Your task to perform on an android device: check storage Image 0: 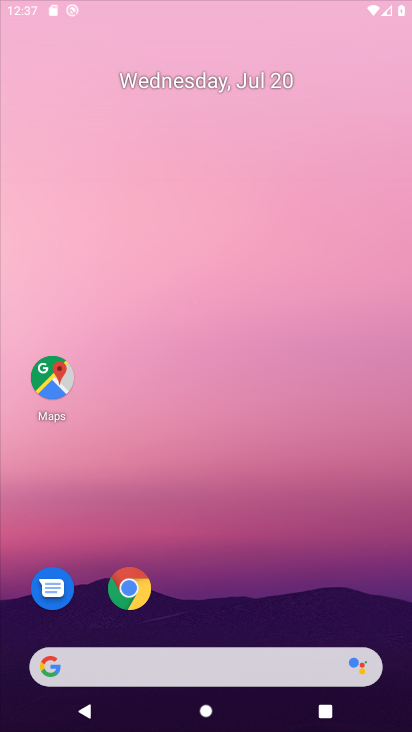
Step 0: click (243, 81)
Your task to perform on an android device: check storage Image 1: 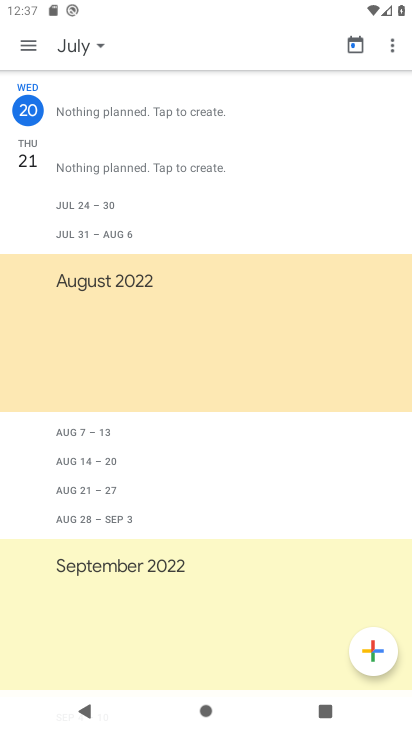
Step 1: press home button
Your task to perform on an android device: check storage Image 2: 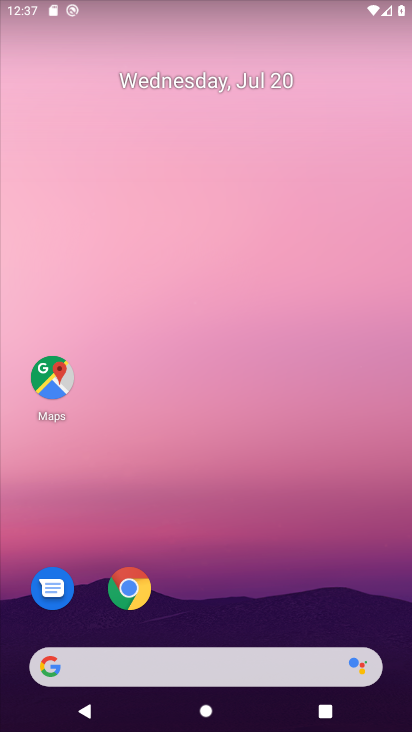
Step 2: drag from (212, 573) to (275, 315)
Your task to perform on an android device: check storage Image 3: 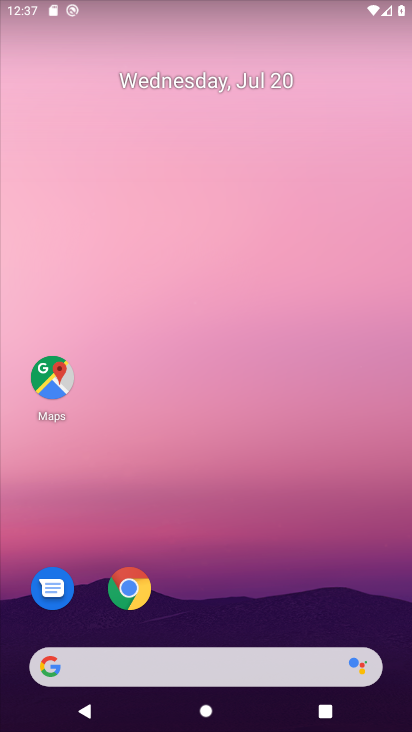
Step 3: drag from (214, 598) to (238, 236)
Your task to perform on an android device: check storage Image 4: 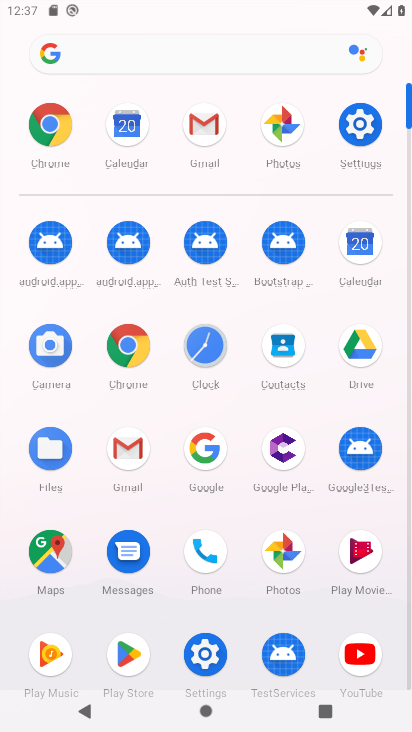
Step 4: click (355, 125)
Your task to perform on an android device: check storage Image 5: 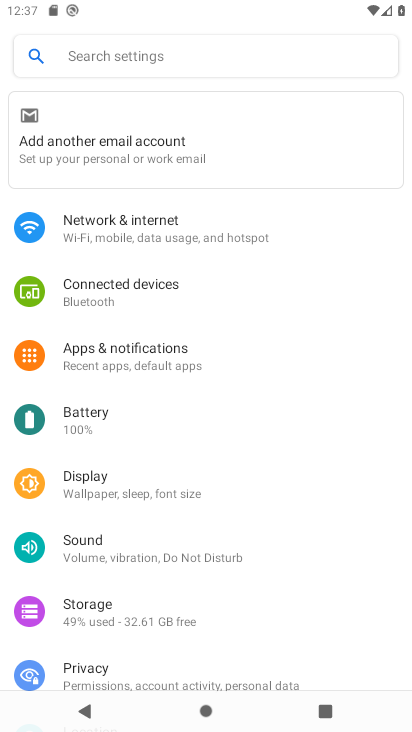
Step 5: click (132, 608)
Your task to perform on an android device: check storage Image 6: 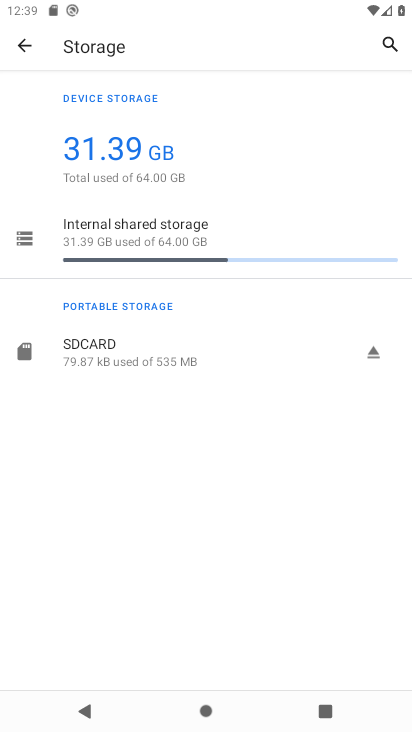
Step 6: task complete